Your task to perform on an android device: turn off notifications settings in the gmail app Image 0: 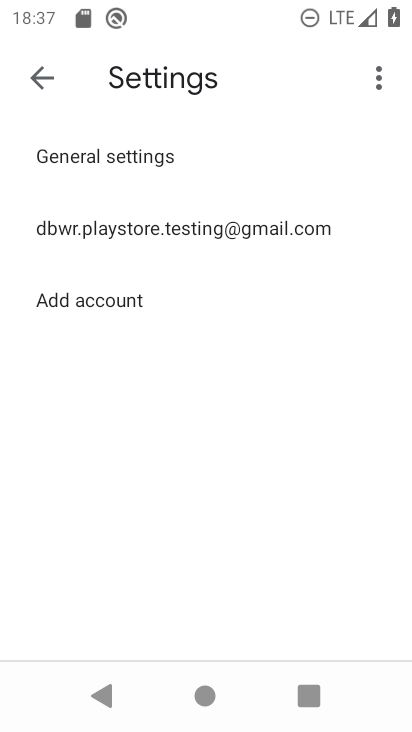
Step 0: press home button
Your task to perform on an android device: turn off notifications settings in the gmail app Image 1: 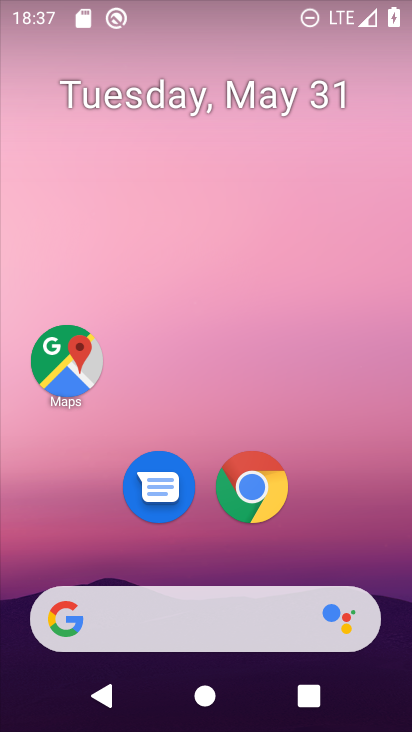
Step 1: drag from (359, 523) to (277, 78)
Your task to perform on an android device: turn off notifications settings in the gmail app Image 2: 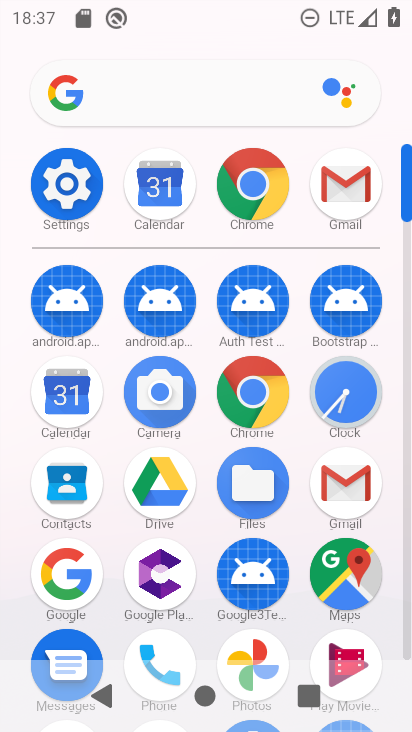
Step 2: click (333, 498)
Your task to perform on an android device: turn off notifications settings in the gmail app Image 3: 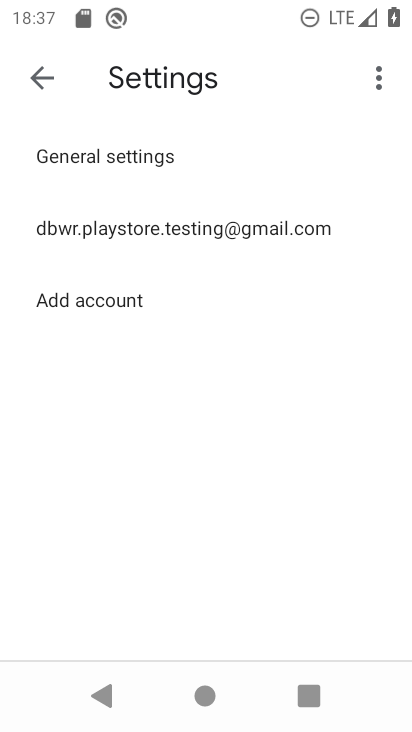
Step 3: click (90, 144)
Your task to perform on an android device: turn off notifications settings in the gmail app Image 4: 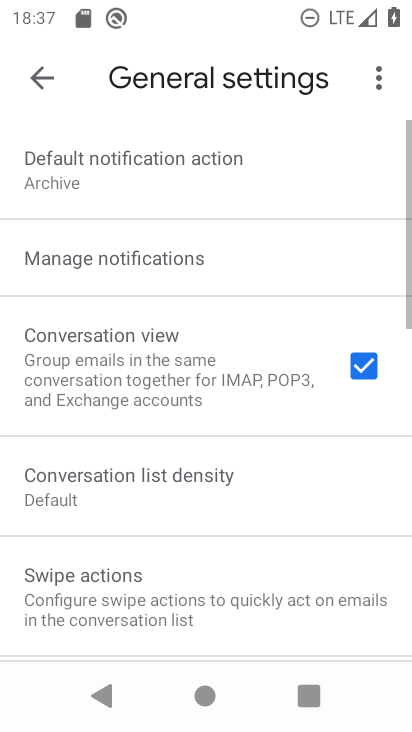
Step 4: click (153, 249)
Your task to perform on an android device: turn off notifications settings in the gmail app Image 5: 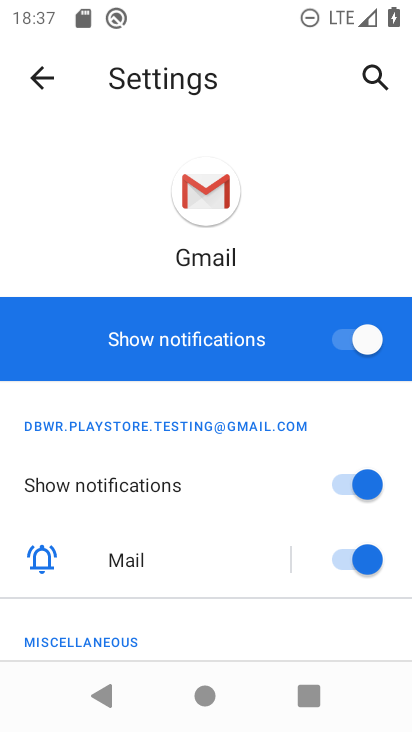
Step 5: click (359, 347)
Your task to perform on an android device: turn off notifications settings in the gmail app Image 6: 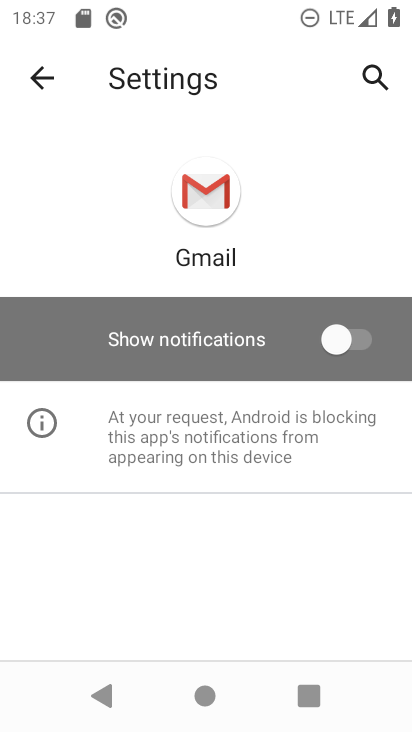
Step 6: task complete